Your task to perform on an android device: Go to wifi settings Image 0: 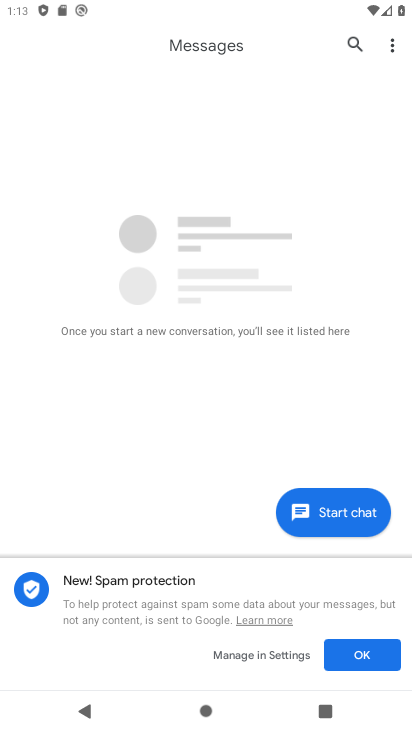
Step 0: press home button
Your task to perform on an android device: Go to wifi settings Image 1: 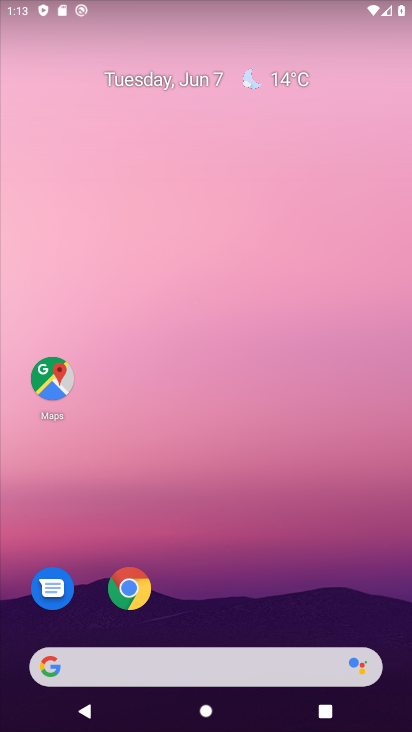
Step 1: drag from (244, 478) to (163, 11)
Your task to perform on an android device: Go to wifi settings Image 2: 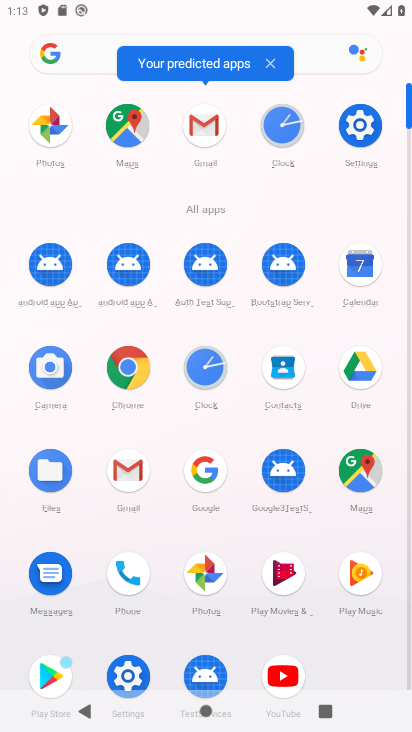
Step 2: click (353, 119)
Your task to perform on an android device: Go to wifi settings Image 3: 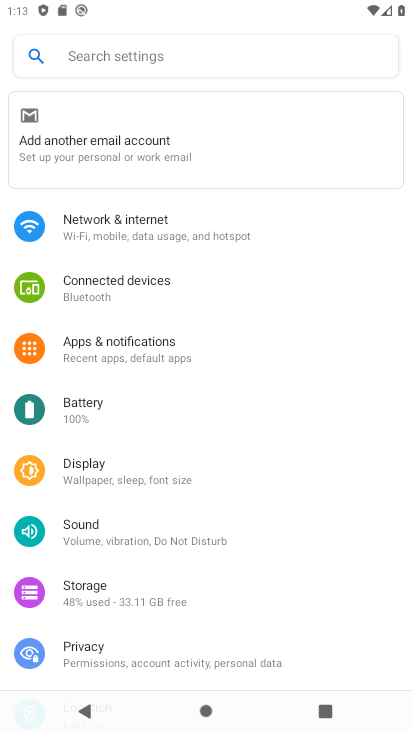
Step 3: click (218, 228)
Your task to perform on an android device: Go to wifi settings Image 4: 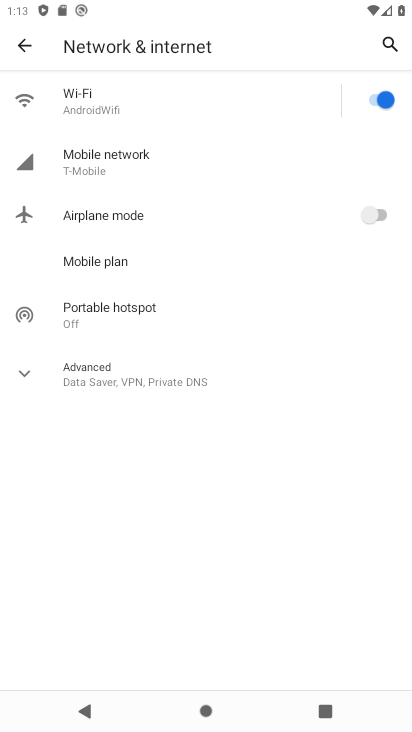
Step 4: click (192, 102)
Your task to perform on an android device: Go to wifi settings Image 5: 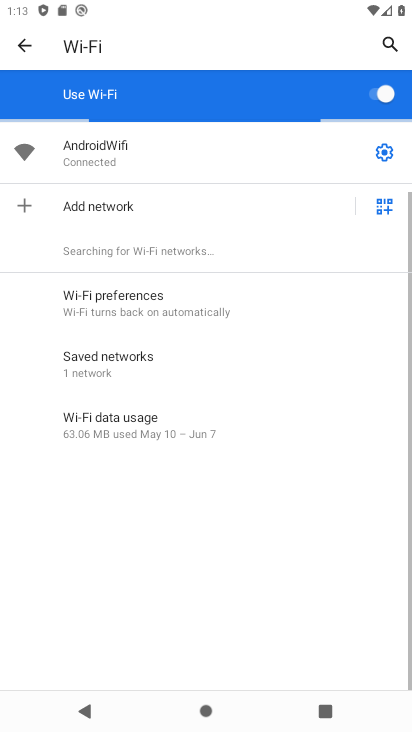
Step 5: task complete